Your task to perform on an android device: Empty the shopping cart on walmart. Add "macbook pro" to the cart on walmart, then select checkout. Image 0: 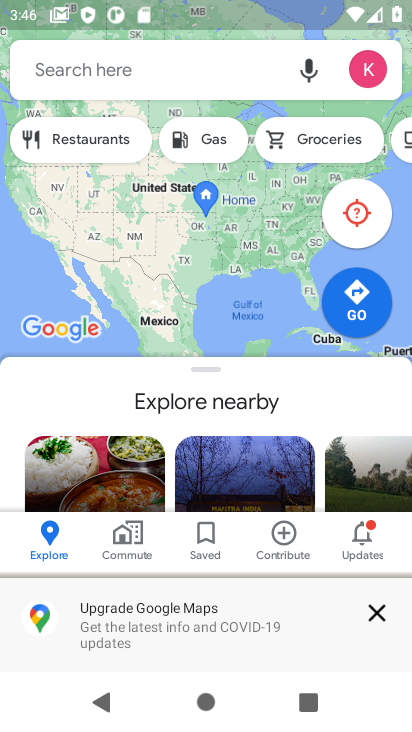
Step 0: press home button
Your task to perform on an android device: Empty the shopping cart on walmart. Add "macbook pro" to the cart on walmart, then select checkout. Image 1: 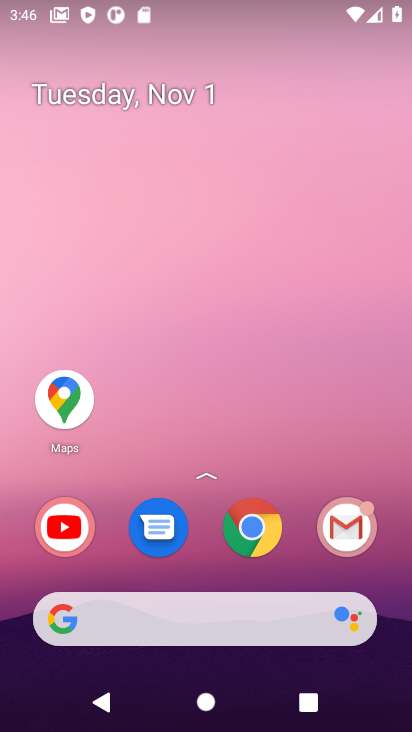
Step 1: click (211, 617)
Your task to perform on an android device: Empty the shopping cart on walmart. Add "macbook pro" to the cart on walmart, then select checkout. Image 2: 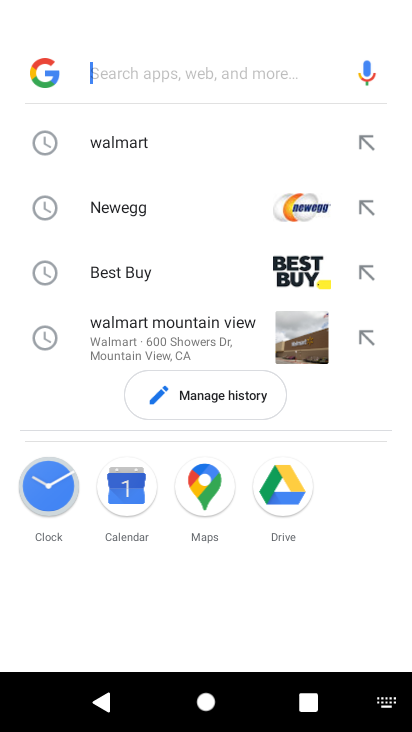
Step 2: click (123, 137)
Your task to perform on an android device: Empty the shopping cart on walmart. Add "macbook pro" to the cart on walmart, then select checkout. Image 3: 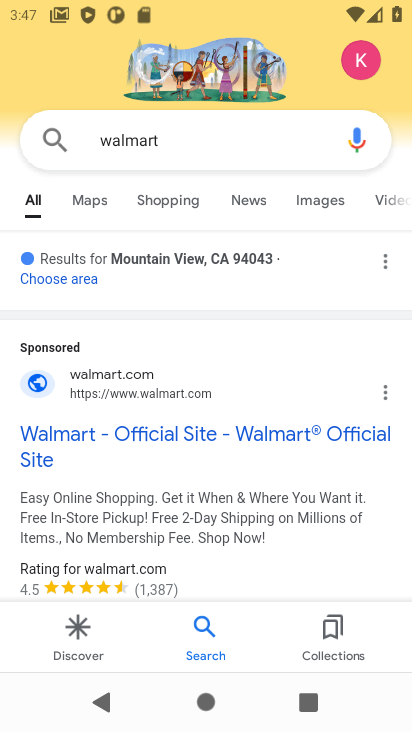
Step 3: click (91, 393)
Your task to perform on an android device: Empty the shopping cart on walmart. Add "macbook pro" to the cart on walmart, then select checkout. Image 4: 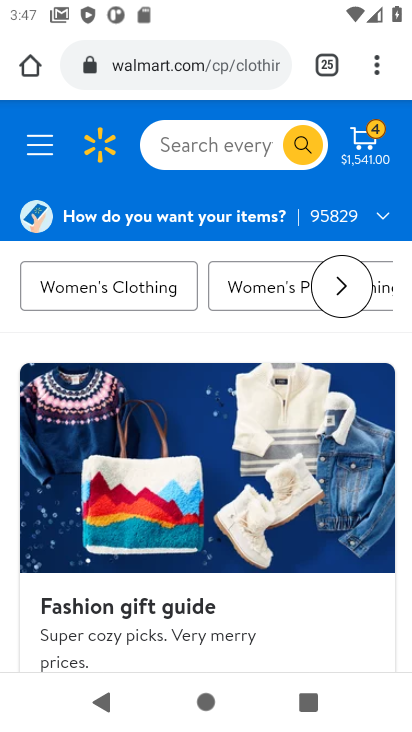
Step 4: click (205, 148)
Your task to perform on an android device: Empty the shopping cart on walmart. Add "macbook pro" to the cart on walmart, then select checkout. Image 5: 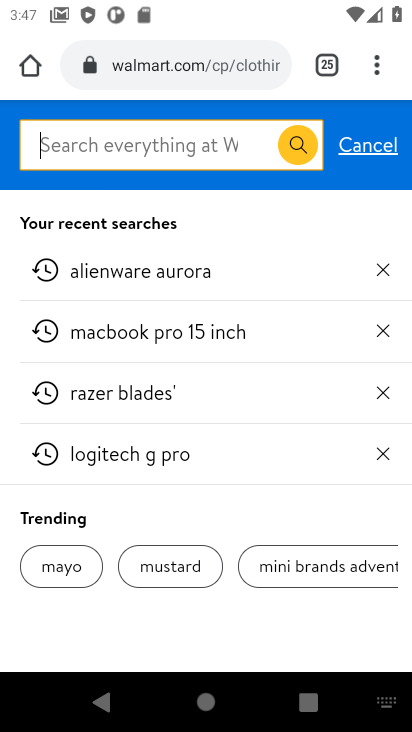
Step 5: type "macbook pro""
Your task to perform on an android device: Empty the shopping cart on walmart. Add "macbook pro" to the cart on walmart, then select checkout. Image 6: 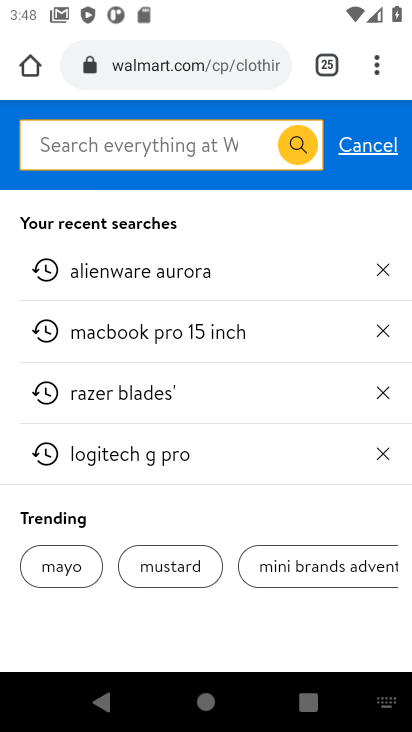
Step 6: type "macbook pro"
Your task to perform on an android device: Empty the shopping cart on walmart. Add "macbook pro" to the cart on walmart, then select checkout. Image 7: 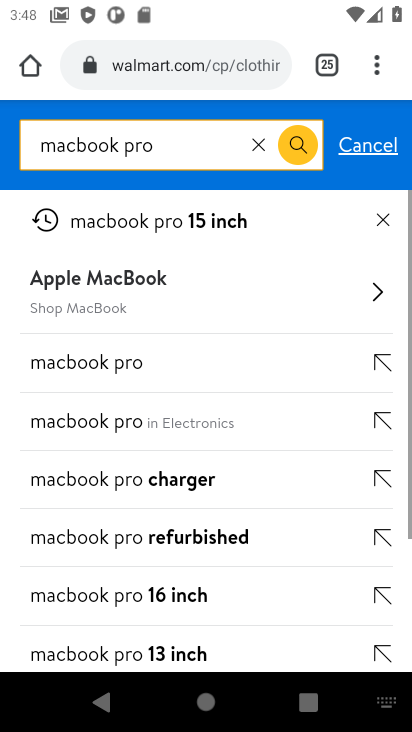
Step 7: click (137, 364)
Your task to perform on an android device: Empty the shopping cart on walmart. Add "macbook pro" to the cart on walmart, then select checkout. Image 8: 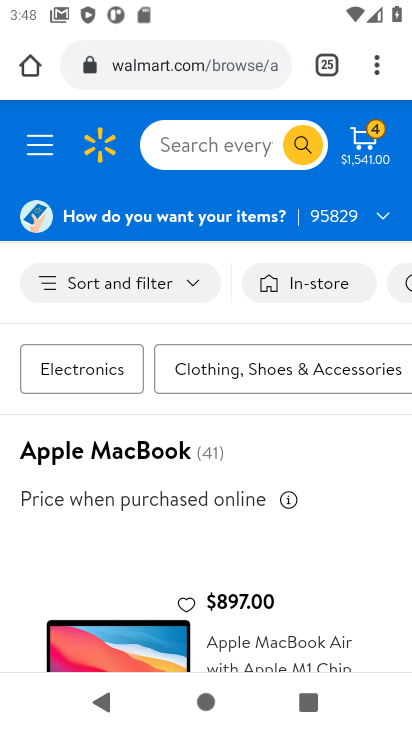
Step 8: drag from (259, 521) to (264, 185)
Your task to perform on an android device: Empty the shopping cart on walmart. Add "macbook pro" to the cart on walmart, then select checkout. Image 9: 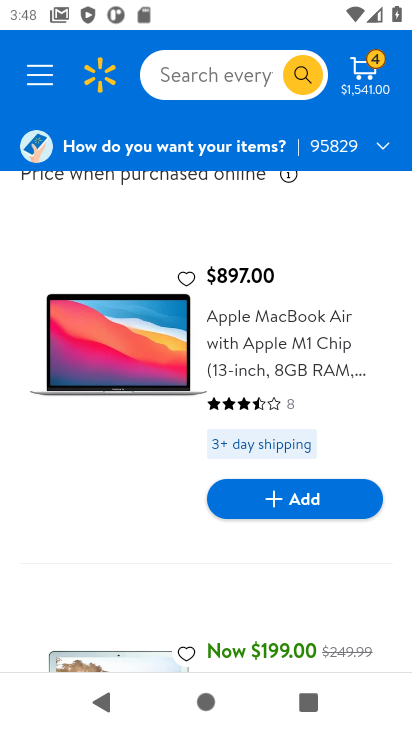
Step 9: click (285, 497)
Your task to perform on an android device: Empty the shopping cart on walmart. Add "macbook pro" to the cart on walmart, then select checkout. Image 10: 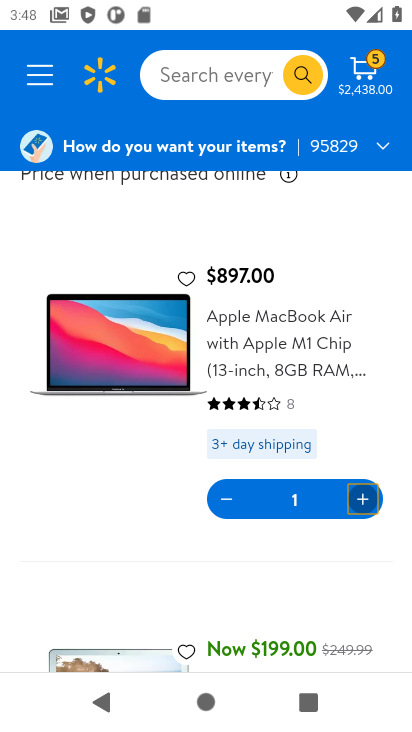
Step 10: click (373, 65)
Your task to perform on an android device: Empty the shopping cart on walmart. Add "macbook pro" to the cart on walmart, then select checkout. Image 11: 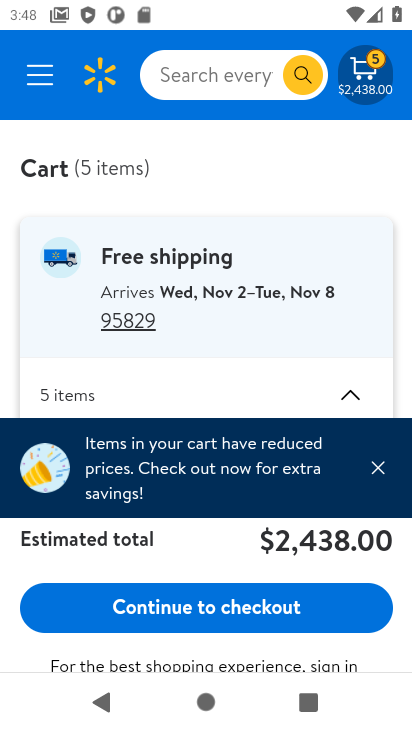
Step 11: click (202, 610)
Your task to perform on an android device: Empty the shopping cart on walmart. Add "macbook pro" to the cart on walmart, then select checkout. Image 12: 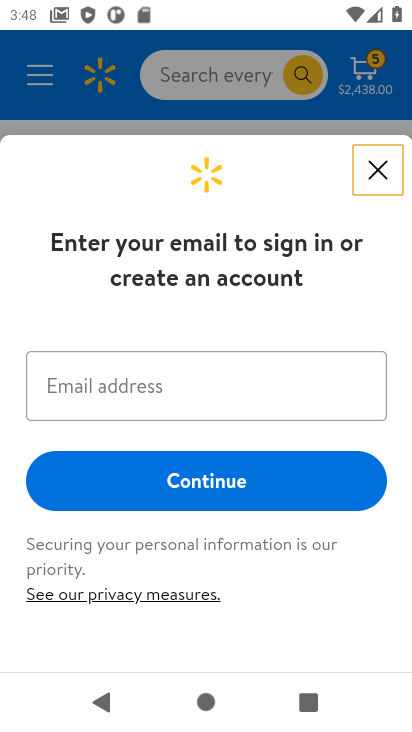
Step 12: task complete